Your task to perform on an android device: Open the web browser Image 0: 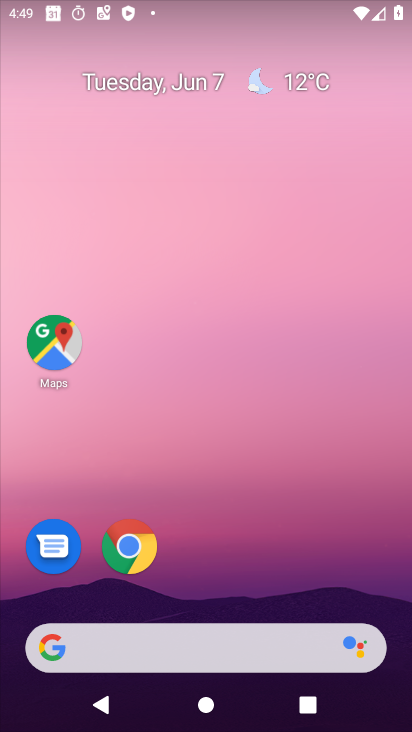
Step 0: click (130, 633)
Your task to perform on an android device: Open the web browser Image 1: 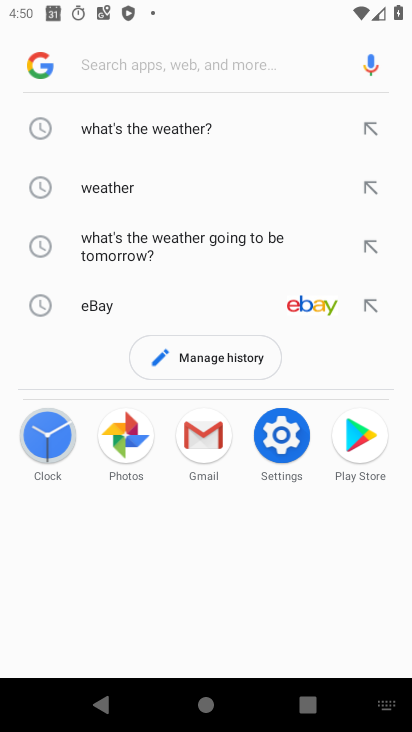
Step 1: task complete